Your task to perform on an android device: What's on my calendar tomorrow? Image 0: 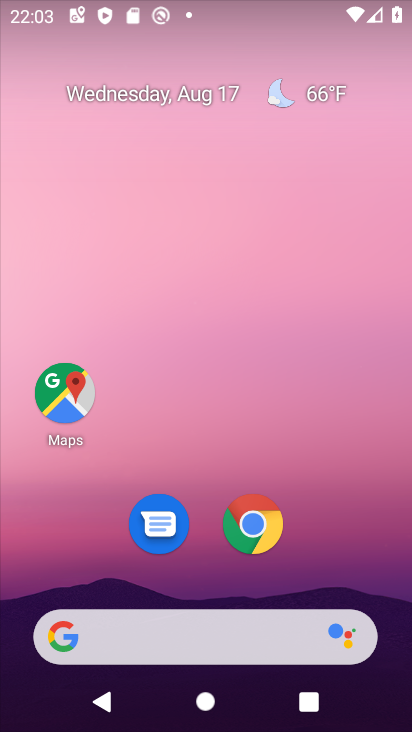
Step 0: drag from (338, 532) to (305, 2)
Your task to perform on an android device: What's on my calendar tomorrow? Image 1: 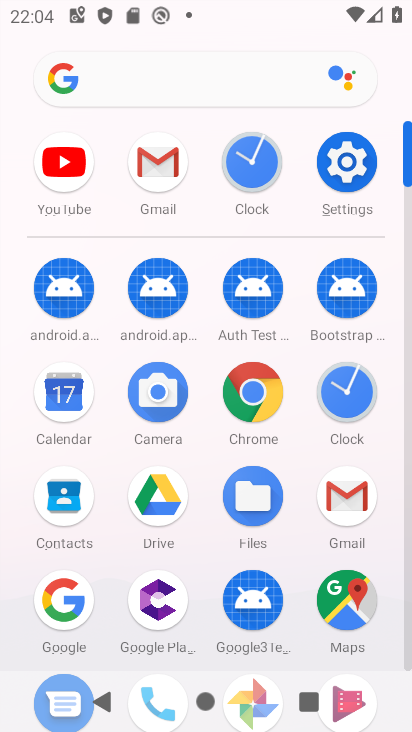
Step 1: click (67, 389)
Your task to perform on an android device: What's on my calendar tomorrow? Image 2: 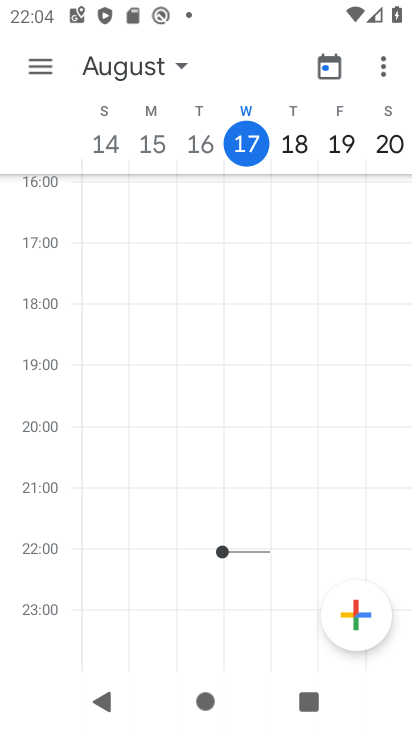
Step 2: task complete